Your task to perform on an android device: Show me recent news Image 0: 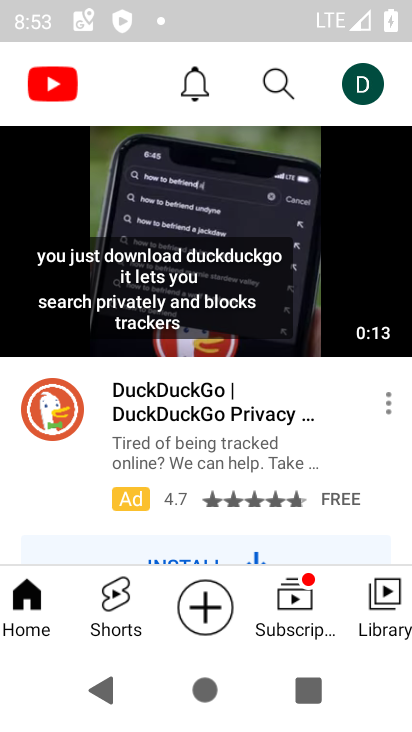
Step 0: press home button
Your task to perform on an android device: Show me recent news Image 1: 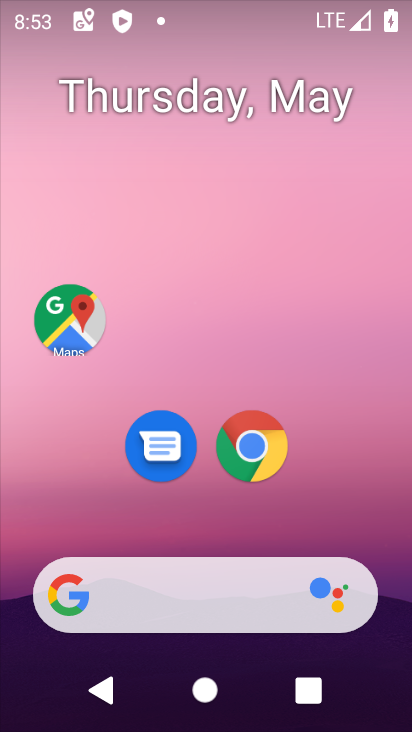
Step 1: task complete